Your task to perform on an android device: Show the shopping cart on ebay.com. Search for "razer blade" on ebay.com, select the first entry, add it to the cart, then select checkout. Image 0: 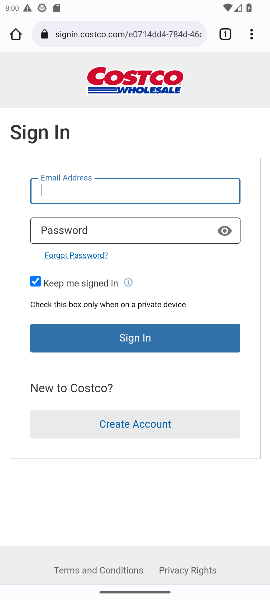
Step 0: click (107, 40)
Your task to perform on an android device: Show the shopping cart on ebay.com. Search for "razer blade" on ebay.com, select the first entry, add it to the cart, then select checkout. Image 1: 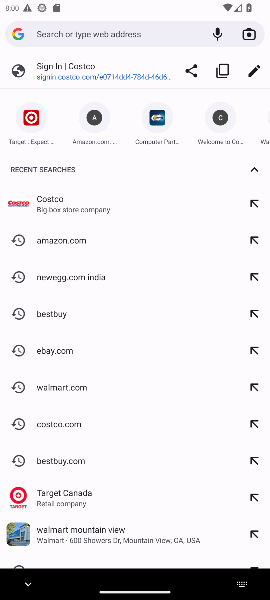
Step 1: type "ebay.com"
Your task to perform on an android device: Show the shopping cart on ebay.com. Search for "razer blade" on ebay.com, select the first entry, add it to the cart, then select checkout. Image 2: 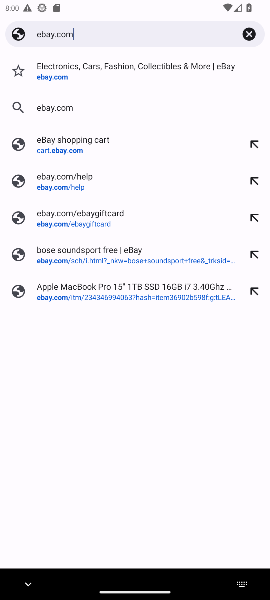
Step 2: press enter
Your task to perform on an android device: Show the shopping cart on ebay.com. Search for "razer blade" on ebay.com, select the first entry, add it to the cart, then select checkout. Image 3: 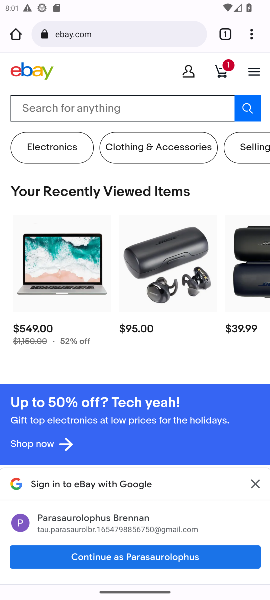
Step 3: click (72, 108)
Your task to perform on an android device: Show the shopping cart on ebay.com. Search for "razer blade" on ebay.com, select the first entry, add it to the cart, then select checkout. Image 4: 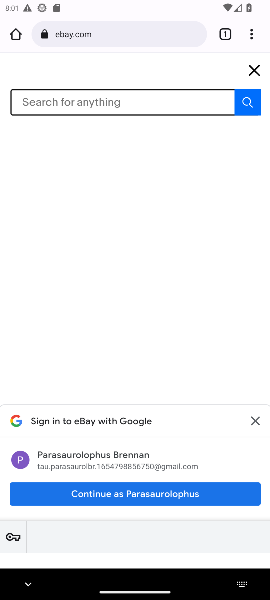
Step 4: click (249, 75)
Your task to perform on an android device: Show the shopping cart on ebay.com. Search for "razer blade" on ebay.com, select the first entry, add it to the cart, then select checkout. Image 5: 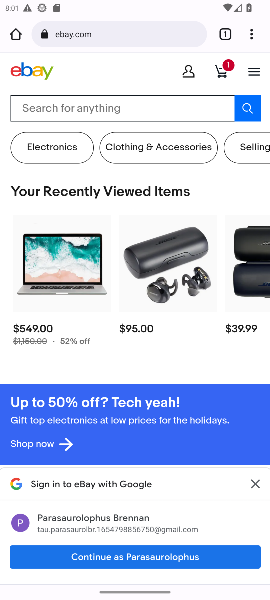
Step 5: click (221, 72)
Your task to perform on an android device: Show the shopping cart on ebay.com. Search for "razer blade" on ebay.com, select the first entry, add it to the cart, then select checkout. Image 6: 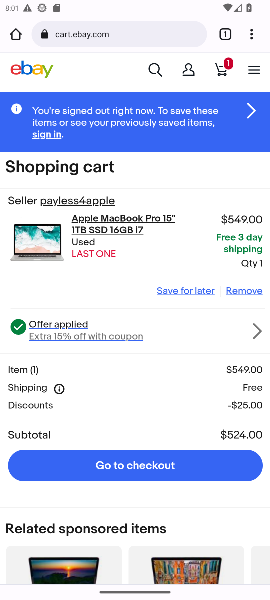
Step 6: click (247, 290)
Your task to perform on an android device: Show the shopping cart on ebay.com. Search for "razer blade" on ebay.com, select the first entry, add it to the cart, then select checkout. Image 7: 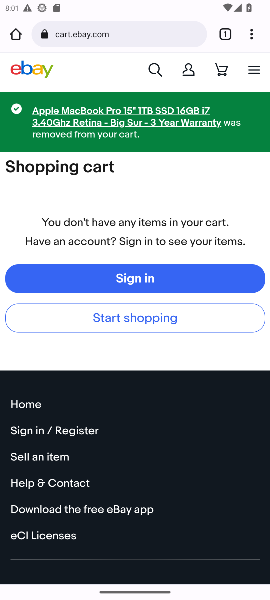
Step 7: click (151, 67)
Your task to perform on an android device: Show the shopping cart on ebay.com. Search for "razer blade" on ebay.com, select the first entry, add it to the cart, then select checkout. Image 8: 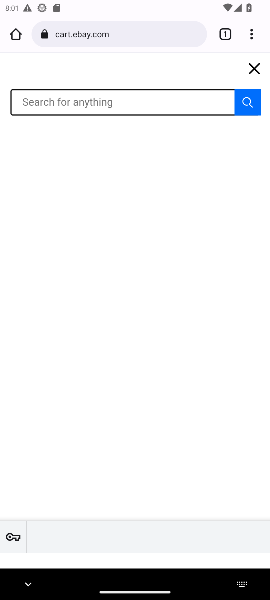
Step 8: type "razer blade"
Your task to perform on an android device: Show the shopping cart on ebay.com. Search for "razer blade" on ebay.com, select the first entry, add it to the cart, then select checkout. Image 9: 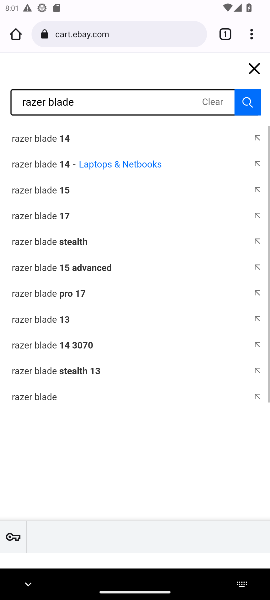
Step 9: press enter
Your task to perform on an android device: Show the shopping cart on ebay.com. Search for "razer blade" on ebay.com, select the first entry, add it to the cart, then select checkout. Image 10: 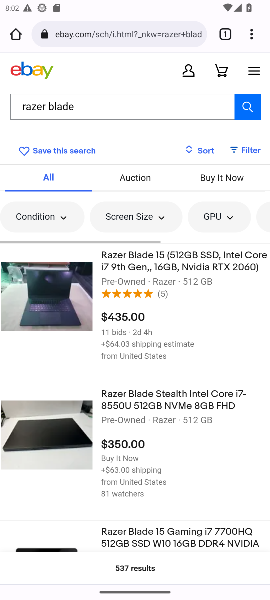
Step 10: click (147, 275)
Your task to perform on an android device: Show the shopping cart on ebay.com. Search for "razer blade" on ebay.com, select the first entry, add it to the cart, then select checkout. Image 11: 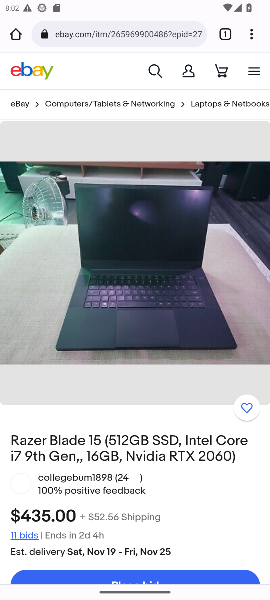
Step 11: task complete